Your task to perform on an android device: Go to Maps Image 0: 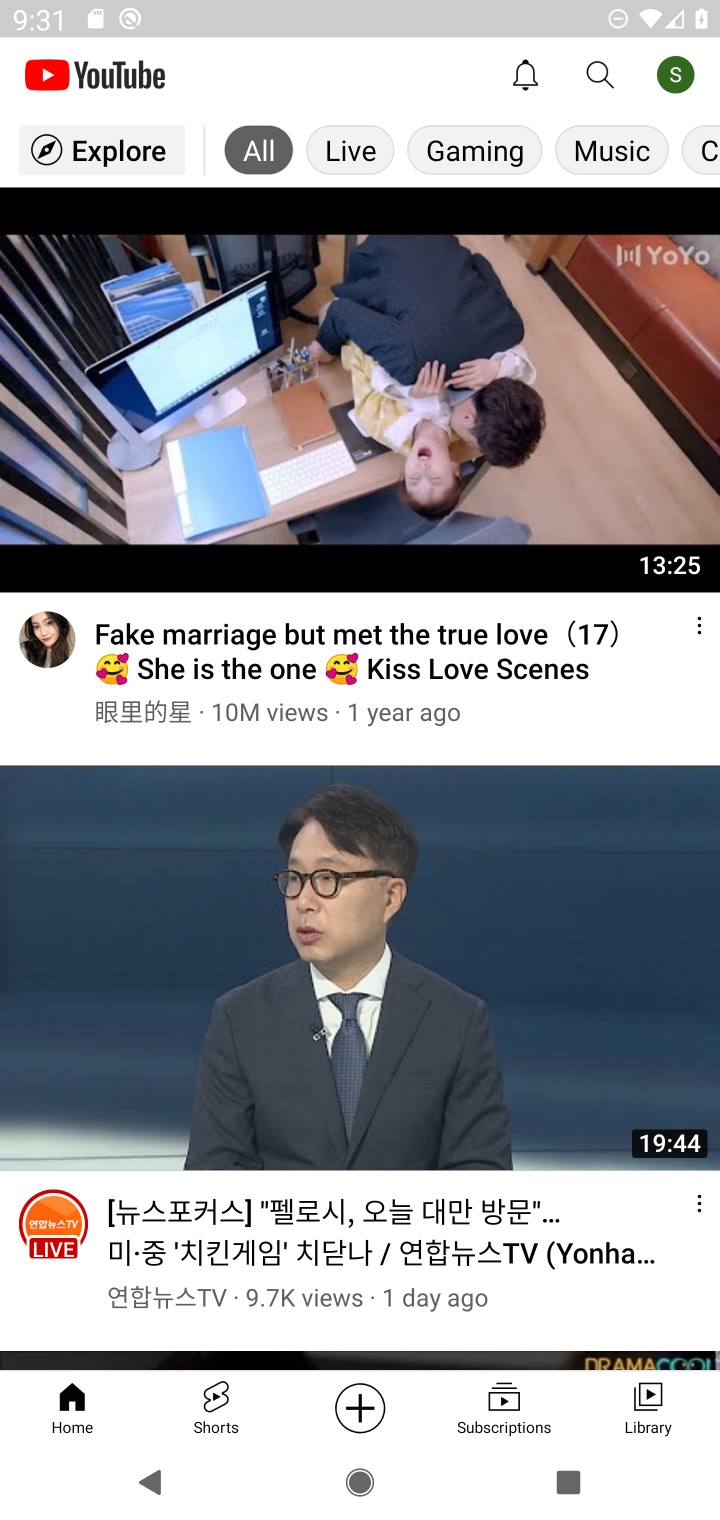
Step 0: press home button
Your task to perform on an android device: Go to Maps Image 1: 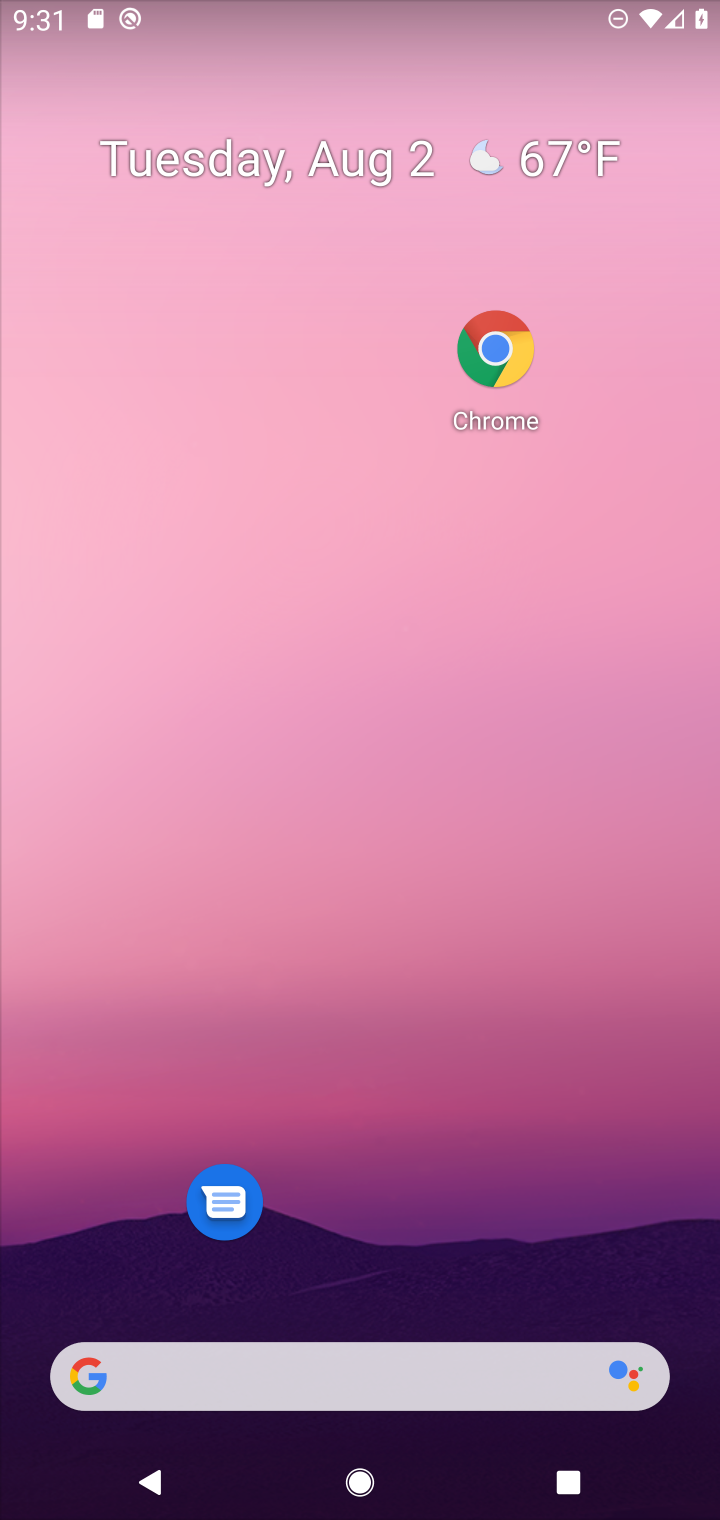
Step 1: drag from (332, 1227) to (285, 33)
Your task to perform on an android device: Go to Maps Image 2: 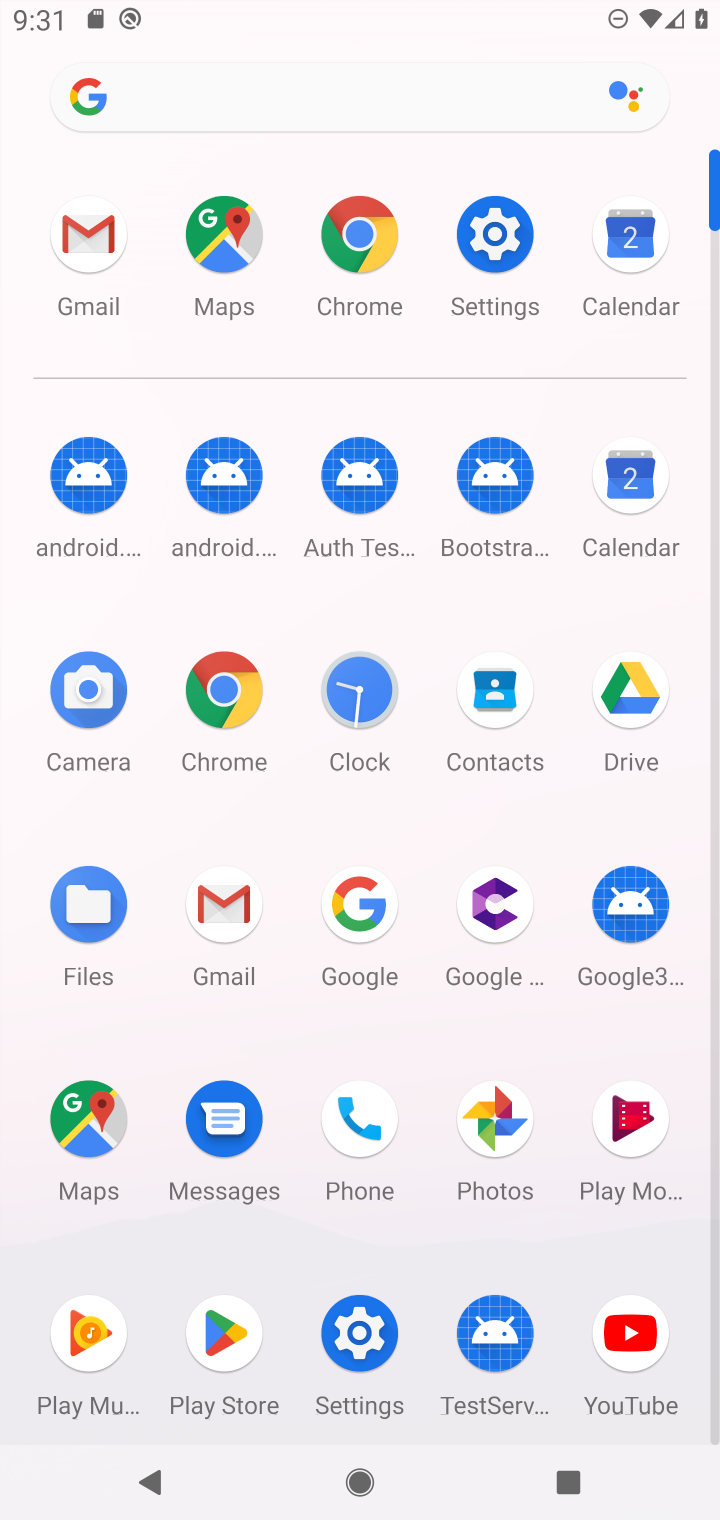
Step 2: click (222, 249)
Your task to perform on an android device: Go to Maps Image 3: 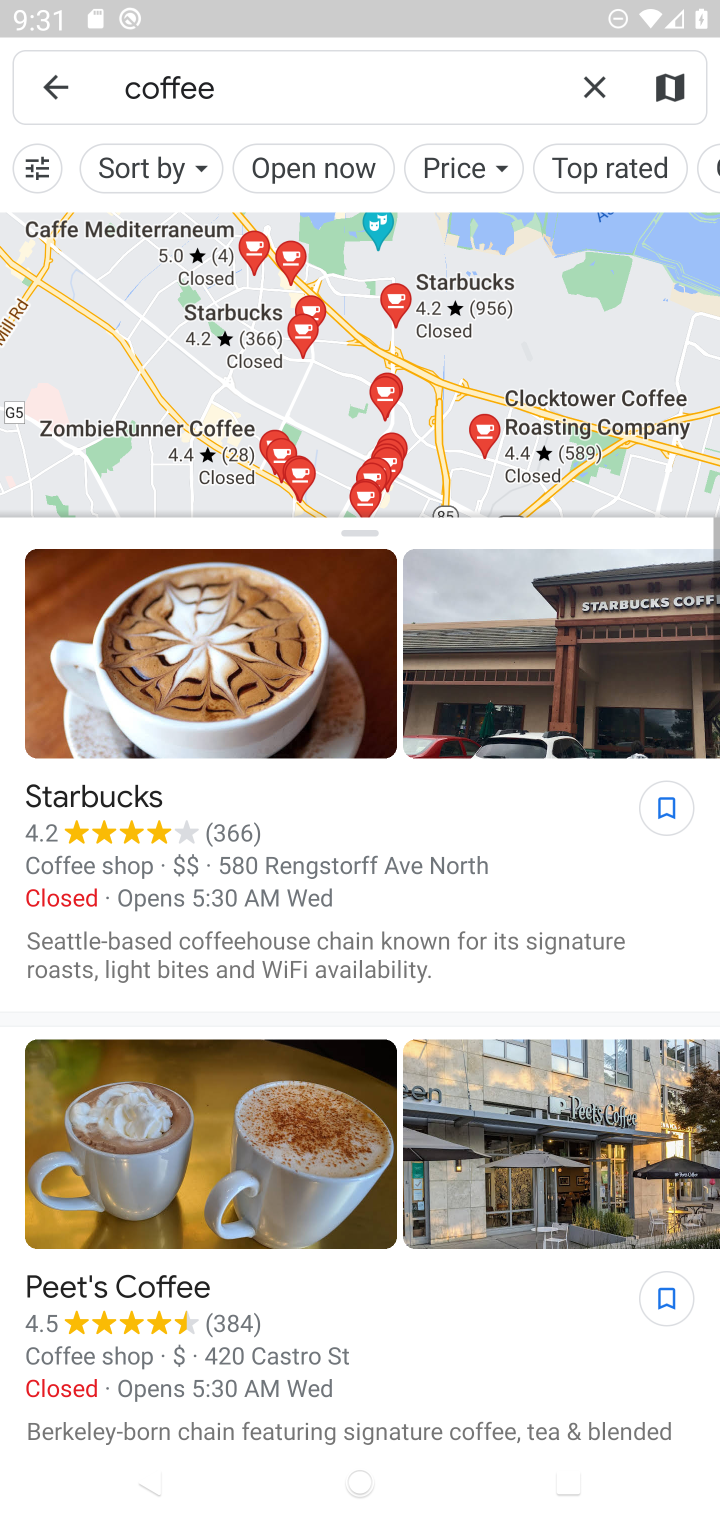
Step 3: task complete